Your task to perform on an android device: turn on showing notifications on the lock screen Image 0: 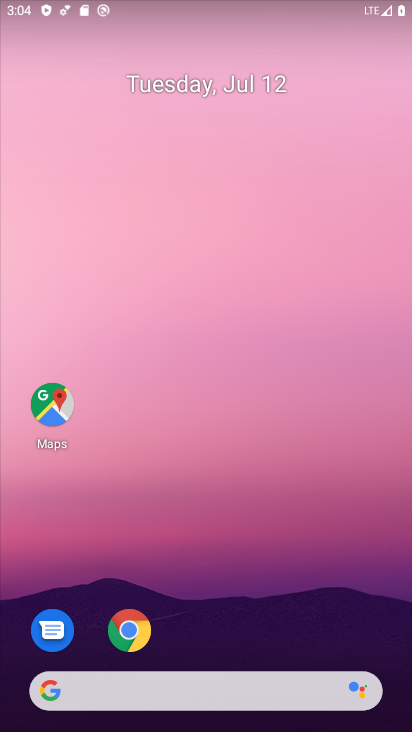
Step 0: drag from (220, 662) to (219, 0)
Your task to perform on an android device: turn on showing notifications on the lock screen Image 1: 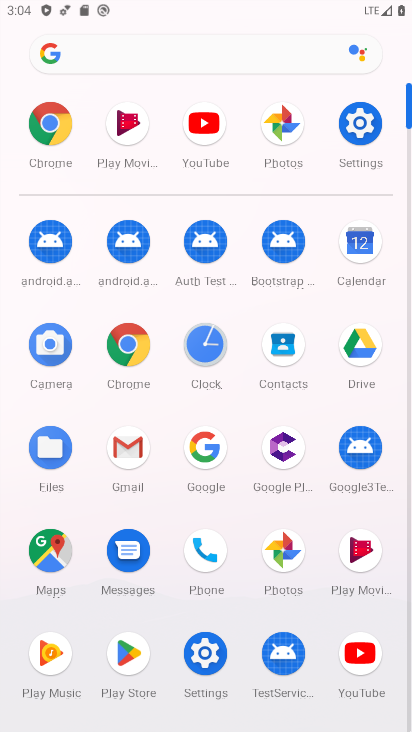
Step 1: click (356, 125)
Your task to perform on an android device: turn on showing notifications on the lock screen Image 2: 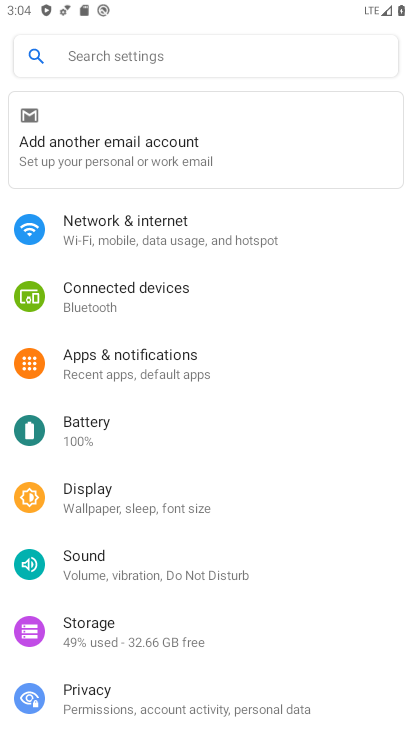
Step 2: click (157, 361)
Your task to perform on an android device: turn on showing notifications on the lock screen Image 3: 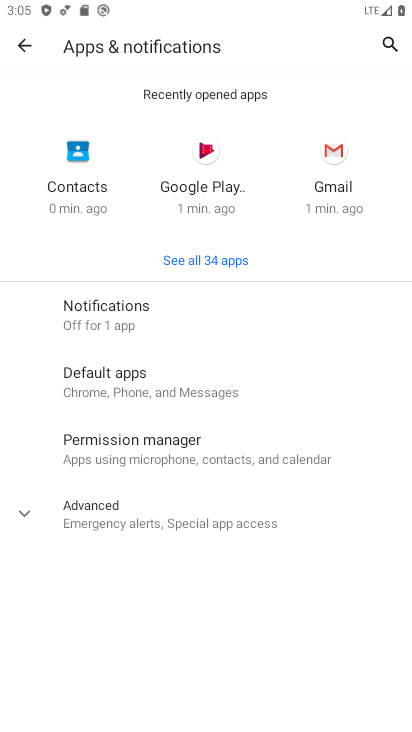
Step 3: click (144, 321)
Your task to perform on an android device: turn on showing notifications on the lock screen Image 4: 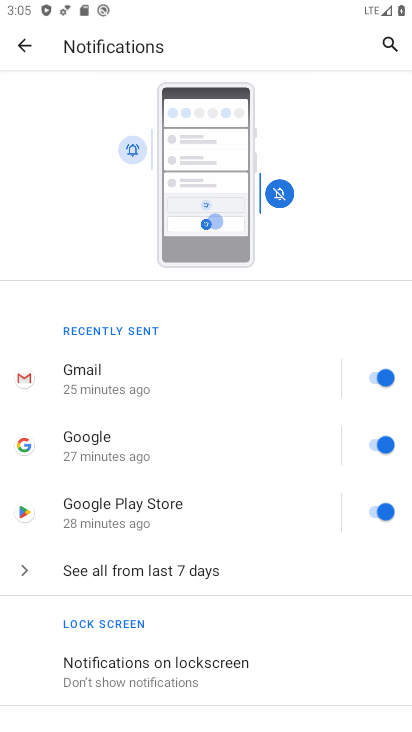
Step 4: click (182, 668)
Your task to perform on an android device: turn on showing notifications on the lock screen Image 5: 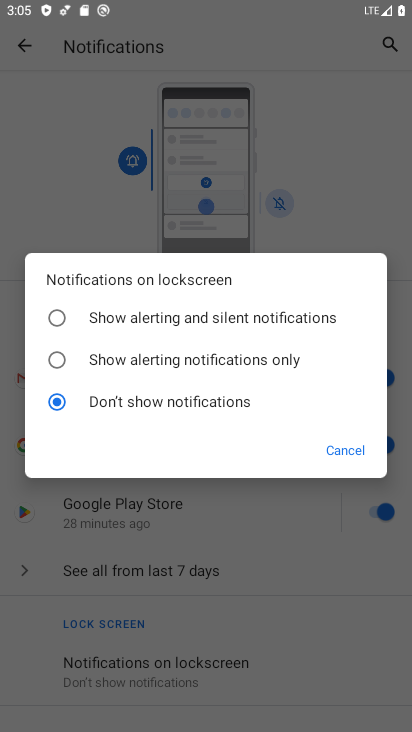
Step 5: click (51, 313)
Your task to perform on an android device: turn on showing notifications on the lock screen Image 6: 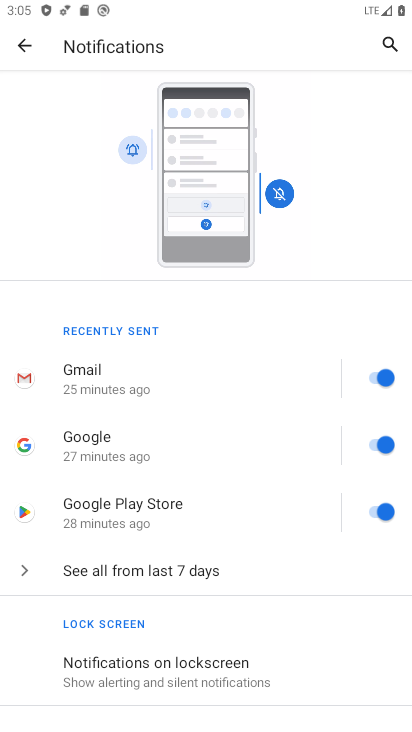
Step 6: task complete